Your task to perform on an android device: Go to Yahoo.com Image 0: 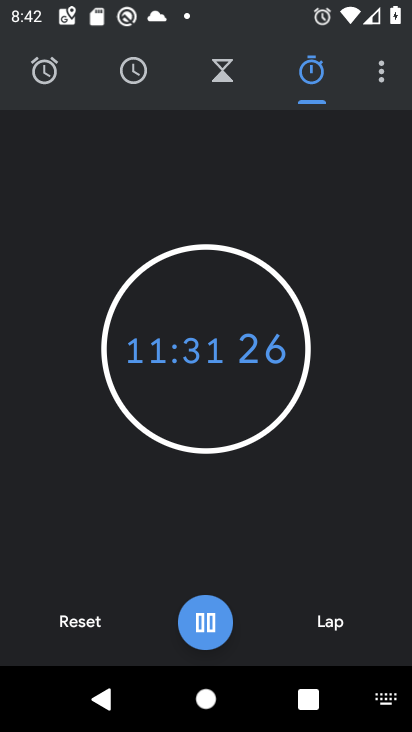
Step 0: press home button
Your task to perform on an android device: Go to Yahoo.com Image 1: 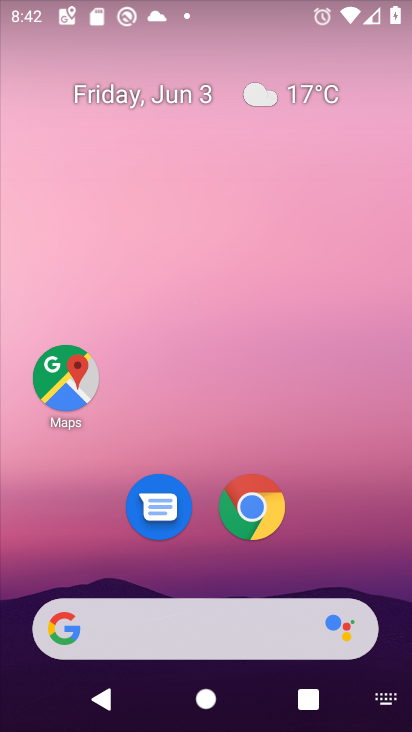
Step 1: click (267, 496)
Your task to perform on an android device: Go to Yahoo.com Image 2: 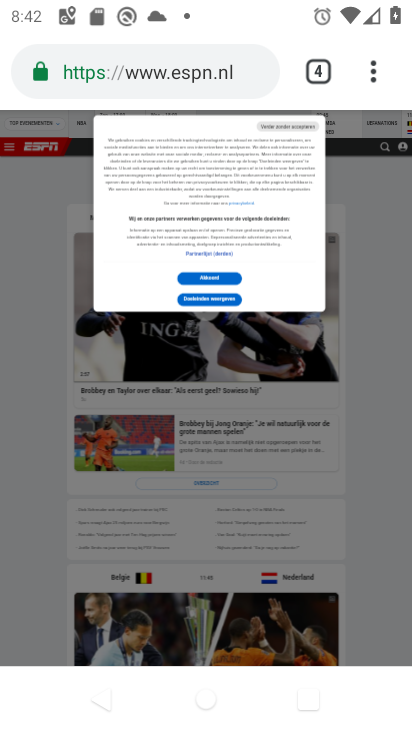
Step 2: click (325, 66)
Your task to perform on an android device: Go to Yahoo.com Image 3: 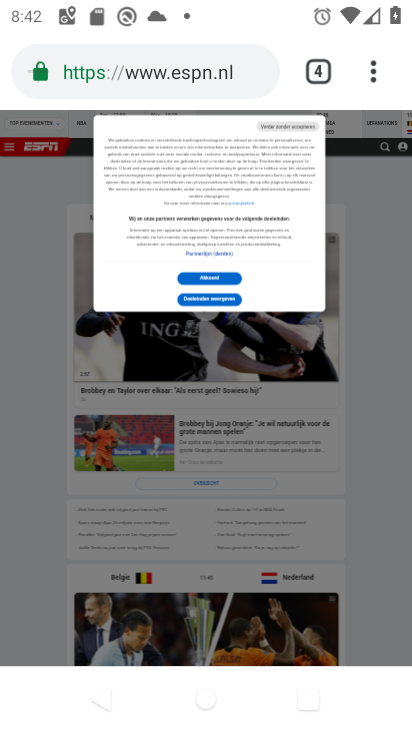
Step 3: click (320, 73)
Your task to perform on an android device: Go to Yahoo.com Image 4: 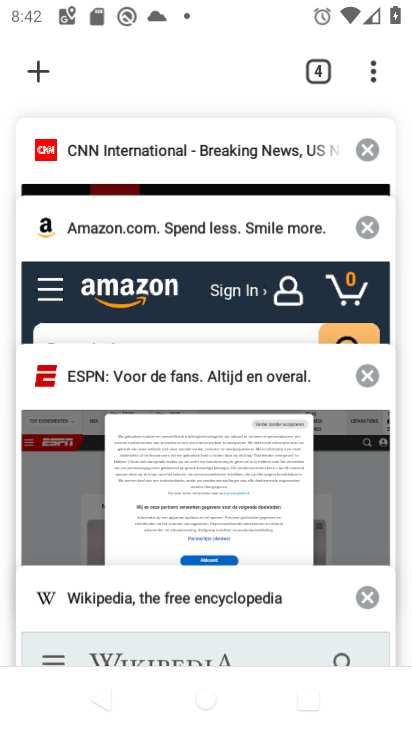
Step 4: click (29, 69)
Your task to perform on an android device: Go to Yahoo.com Image 5: 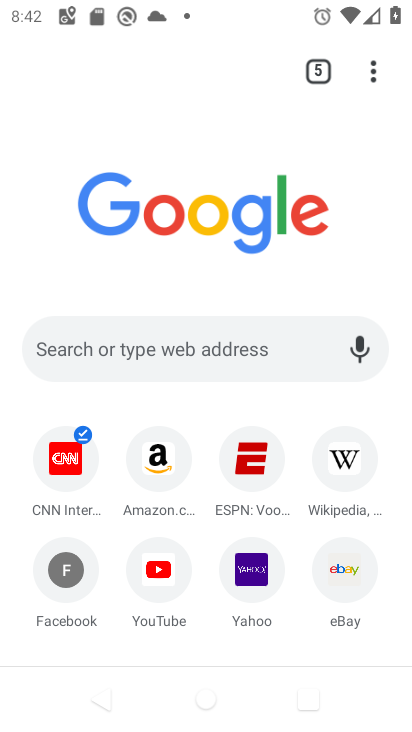
Step 5: click (249, 567)
Your task to perform on an android device: Go to Yahoo.com Image 6: 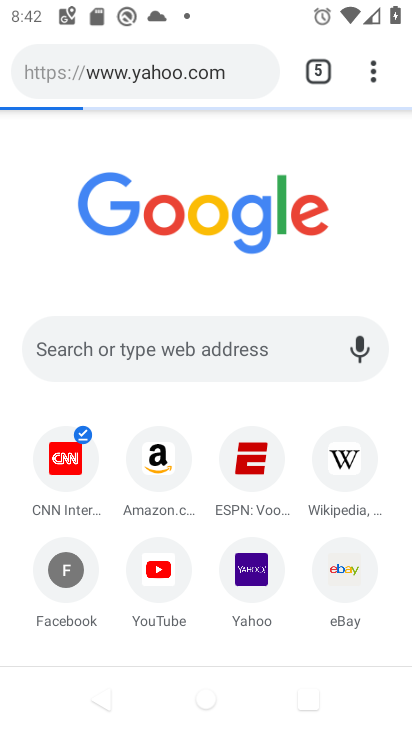
Step 6: task complete